Your task to perform on an android device: turn on location history Image 0: 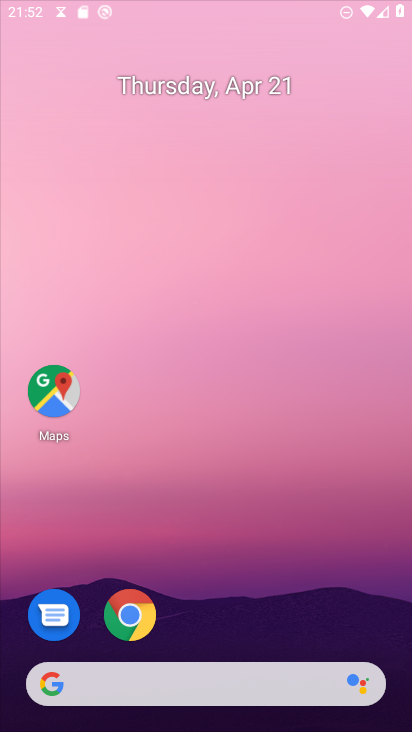
Step 0: click (239, 96)
Your task to perform on an android device: turn on location history Image 1: 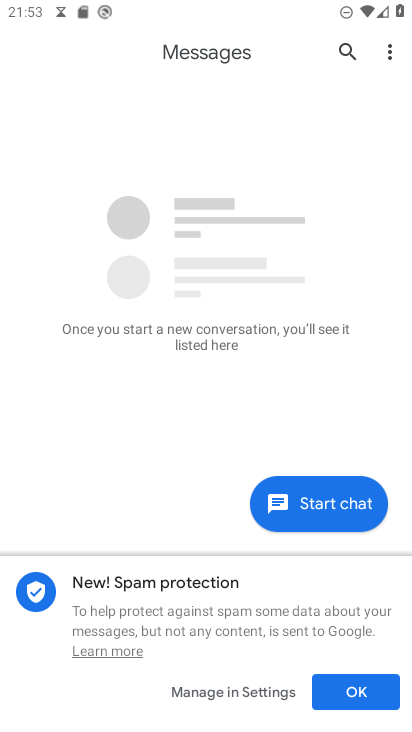
Step 1: drag from (227, 564) to (259, 211)
Your task to perform on an android device: turn on location history Image 2: 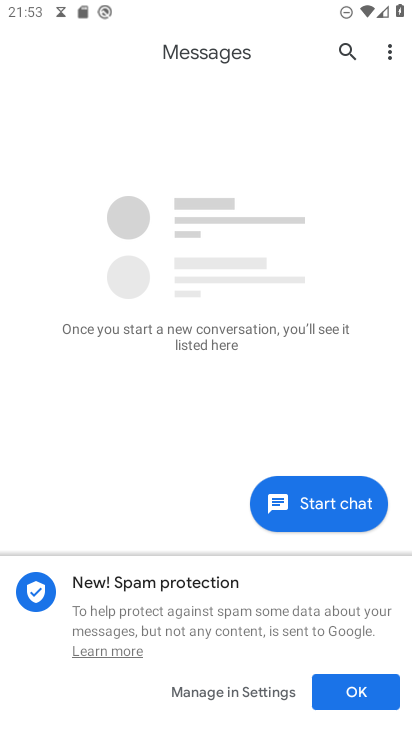
Step 2: drag from (224, 622) to (329, 300)
Your task to perform on an android device: turn on location history Image 3: 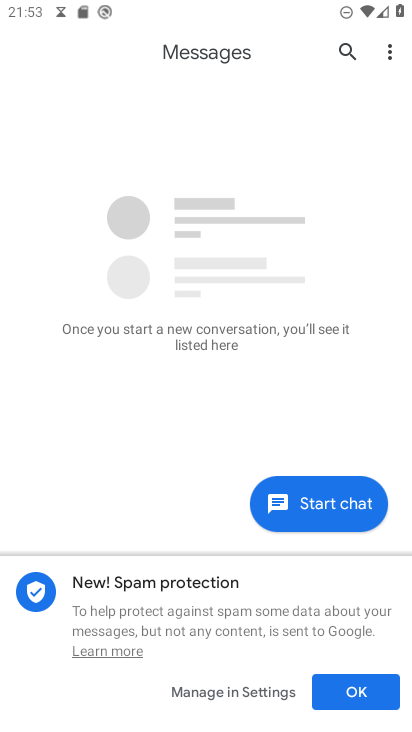
Step 3: drag from (256, 632) to (306, 349)
Your task to perform on an android device: turn on location history Image 4: 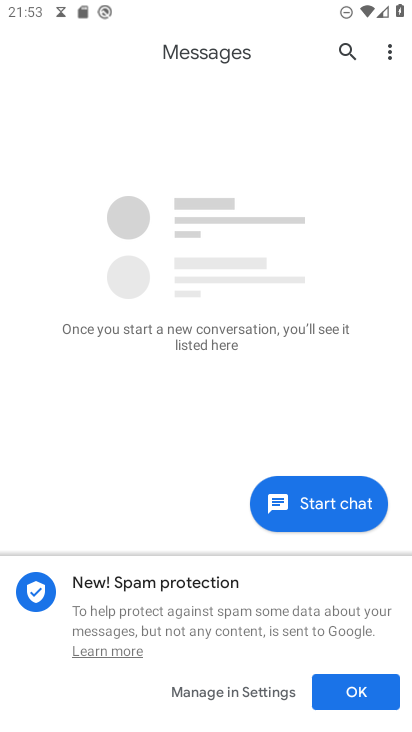
Step 4: drag from (232, 651) to (267, 417)
Your task to perform on an android device: turn on location history Image 5: 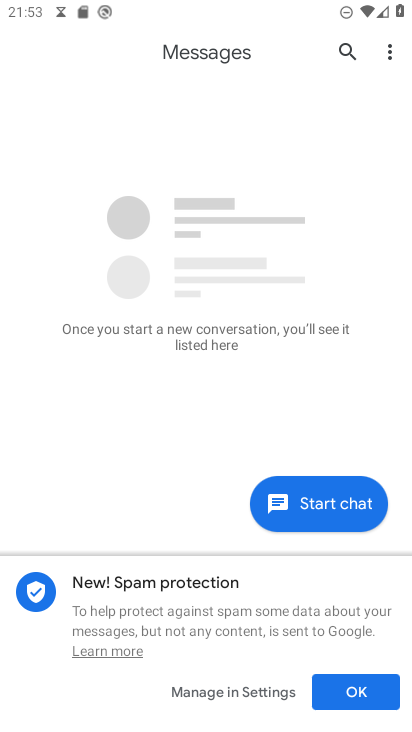
Step 5: drag from (231, 602) to (282, 272)
Your task to perform on an android device: turn on location history Image 6: 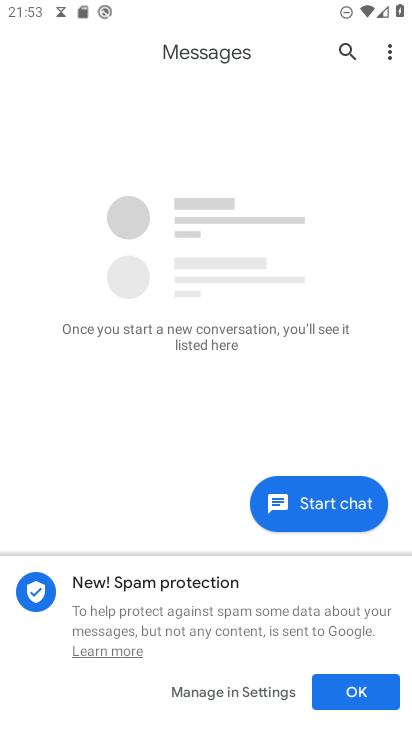
Step 6: press home button
Your task to perform on an android device: turn on location history Image 7: 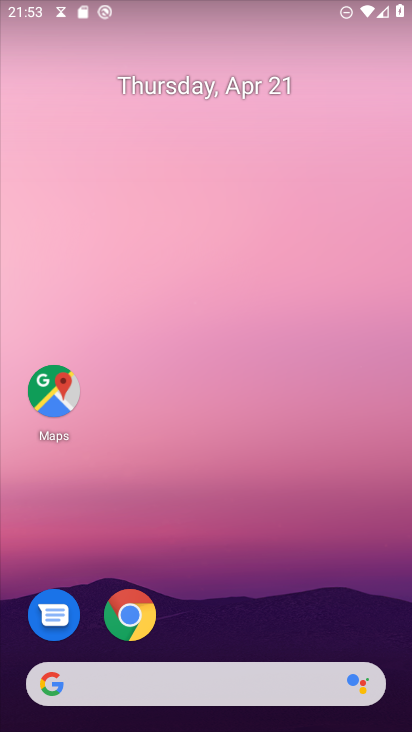
Step 7: drag from (218, 620) to (199, 204)
Your task to perform on an android device: turn on location history Image 8: 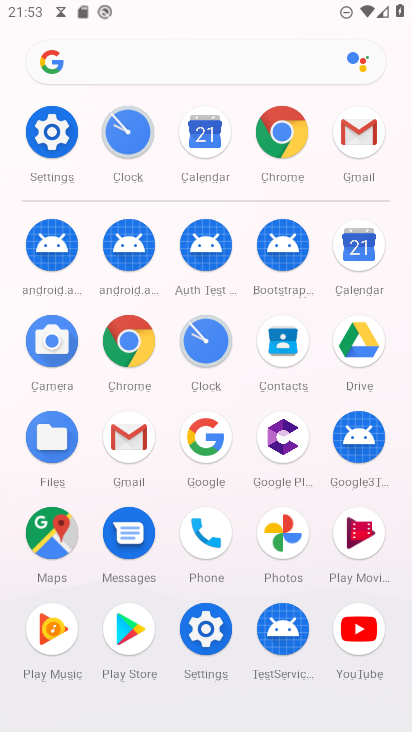
Step 8: click (204, 619)
Your task to perform on an android device: turn on location history Image 9: 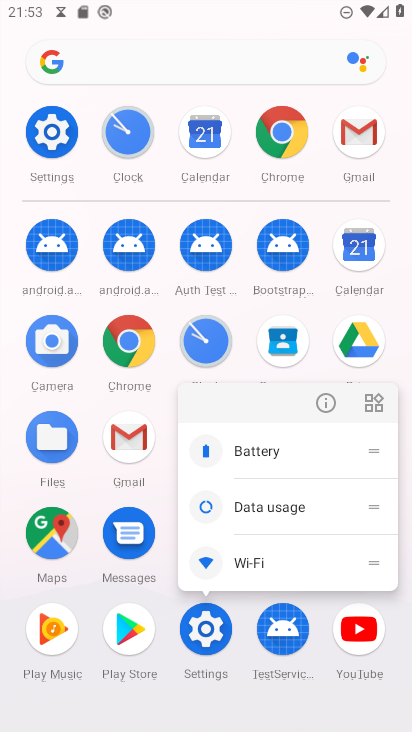
Step 9: click (323, 406)
Your task to perform on an android device: turn on location history Image 10: 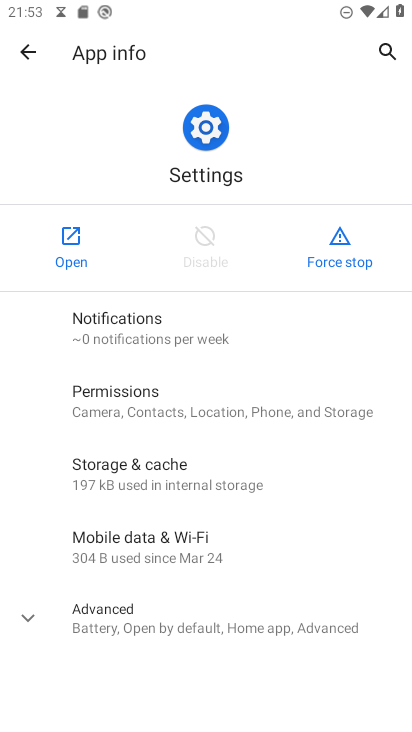
Step 10: click (62, 236)
Your task to perform on an android device: turn on location history Image 11: 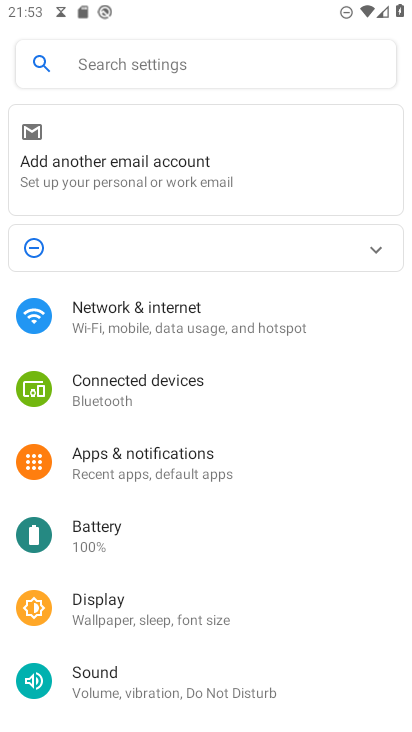
Step 11: drag from (179, 610) to (252, 146)
Your task to perform on an android device: turn on location history Image 12: 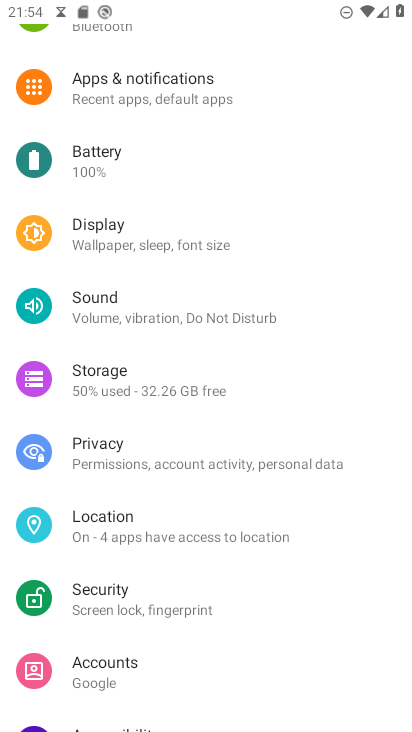
Step 12: click (143, 524)
Your task to perform on an android device: turn on location history Image 13: 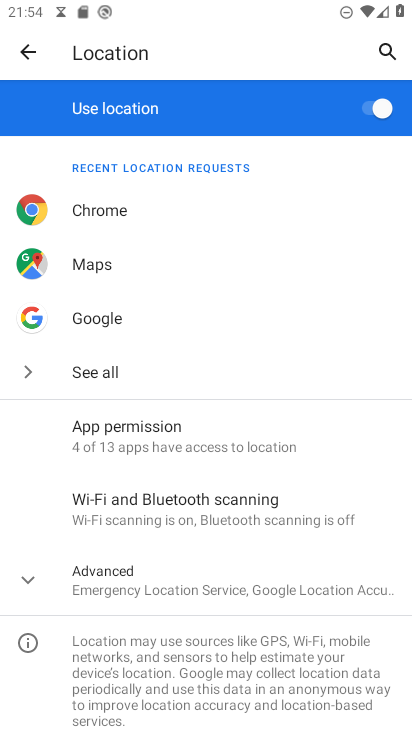
Step 13: click (205, 564)
Your task to perform on an android device: turn on location history Image 14: 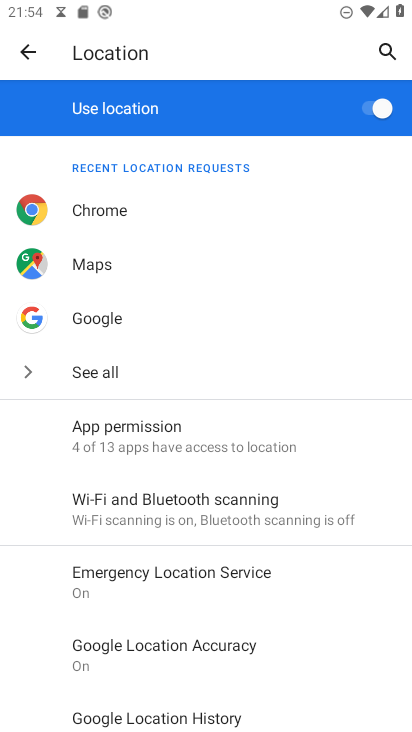
Step 14: drag from (195, 724) to (224, 356)
Your task to perform on an android device: turn on location history Image 15: 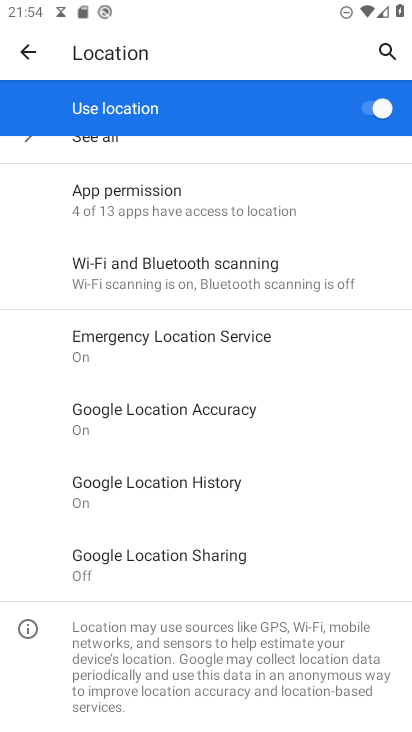
Step 15: click (165, 485)
Your task to perform on an android device: turn on location history Image 16: 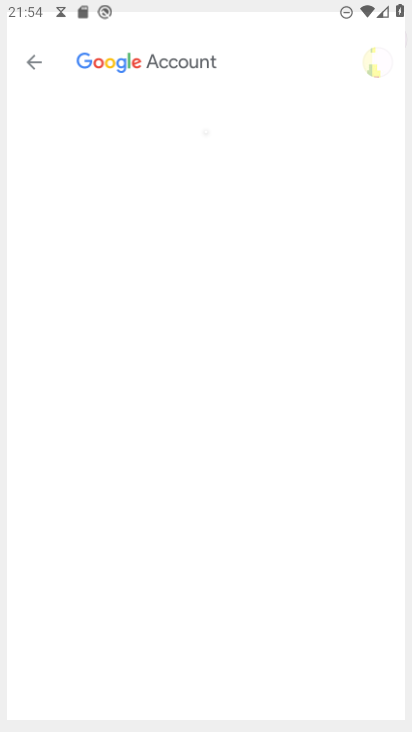
Step 16: drag from (189, 618) to (361, 203)
Your task to perform on an android device: turn on location history Image 17: 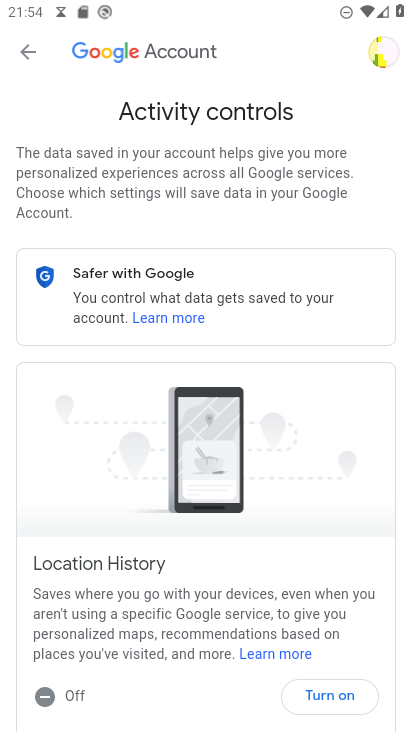
Step 17: click (315, 692)
Your task to perform on an android device: turn on location history Image 18: 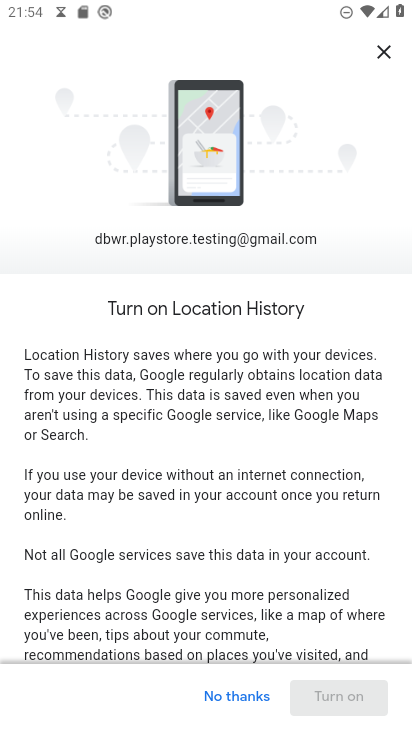
Step 18: drag from (277, 637) to (328, 234)
Your task to perform on an android device: turn on location history Image 19: 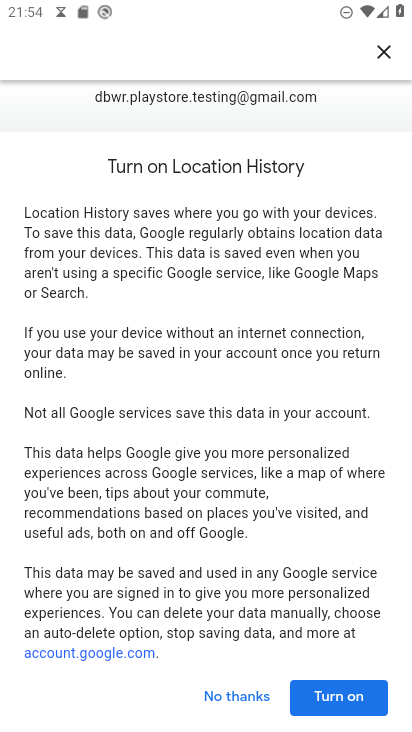
Step 19: click (352, 687)
Your task to perform on an android device: turn on location history Image 20: 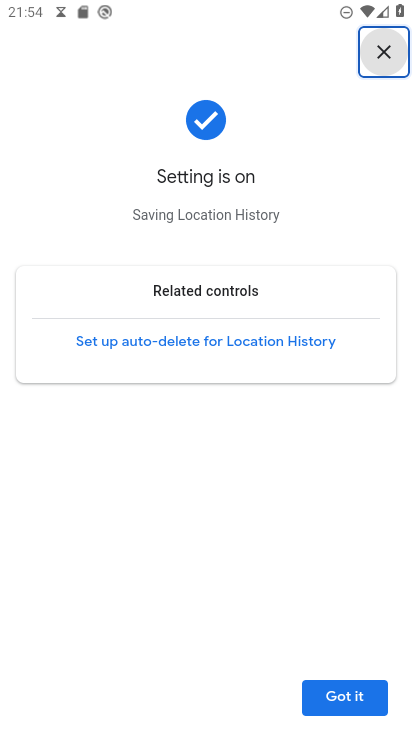
Step 20: click (351, 692)
Your task to perform on an android device: turn on location history Image 21: 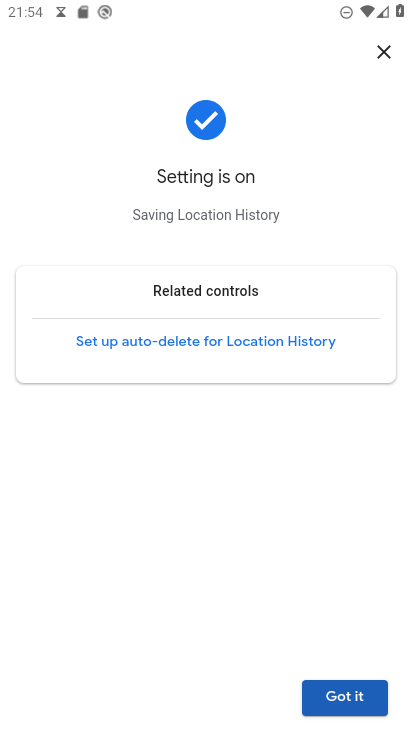
Step 21: task complete